Your task to perform on an android device: set an alarm Image 0: 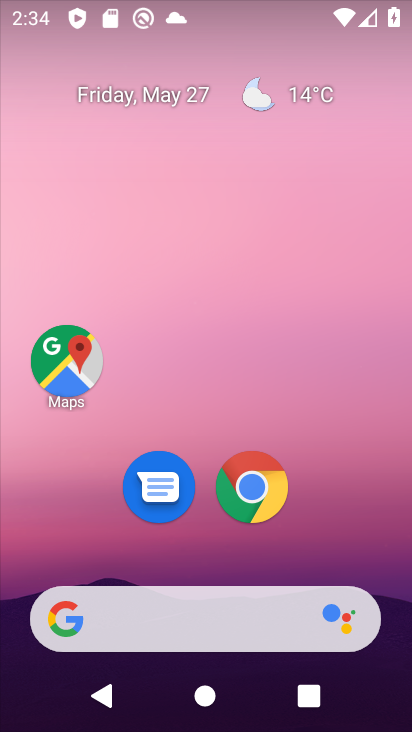
Step 0: drag from (311, 418) to (343, 83)
Your task to perform on an android device: set an alarm Image 1: 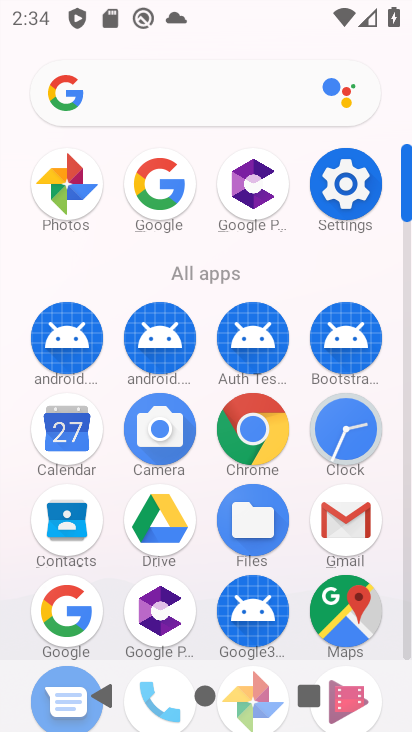
Step 1: click (344, 440)
Your task to perform on an android device: set an alarm Image 2: 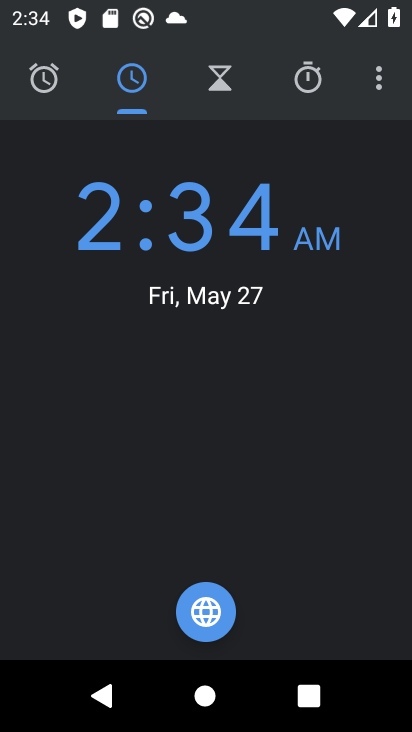
Step 2: click (40, 78)
Your task to perform on an android device: set an alarm Image 3: 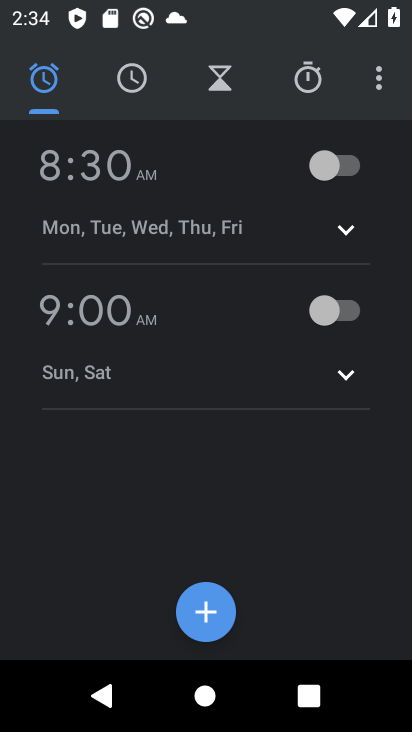
Step 3: click (193, 198)
Your task to perform on an android device: set an alarm Image 4: 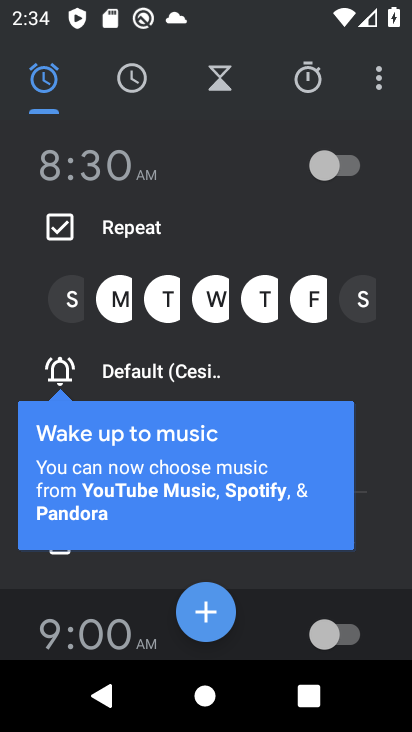
Step 4: click (206, 609)
Your task to perform on an android device: set an alarm Image 5: 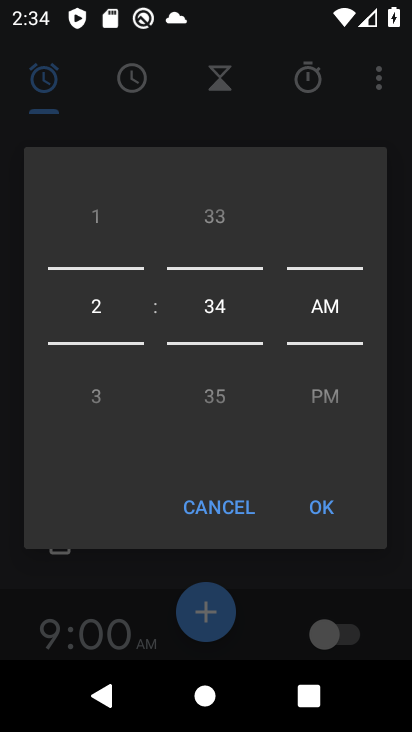
Step 5: task complete